Your task to perform on an android device: Open location settings Image 0: 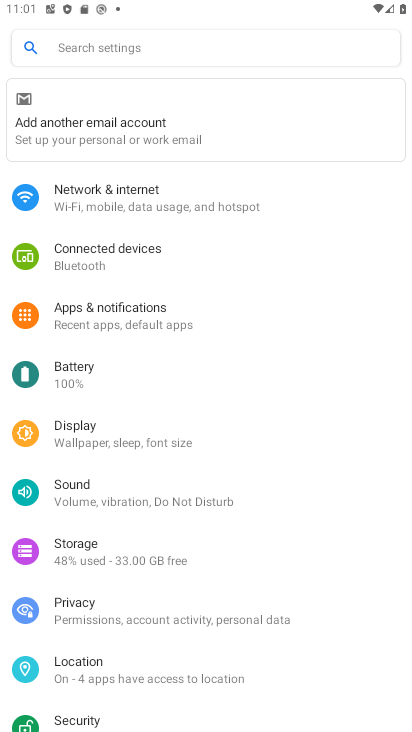
Step 0: press home button
Your task to perform on an android device: Open location settings Image 1: 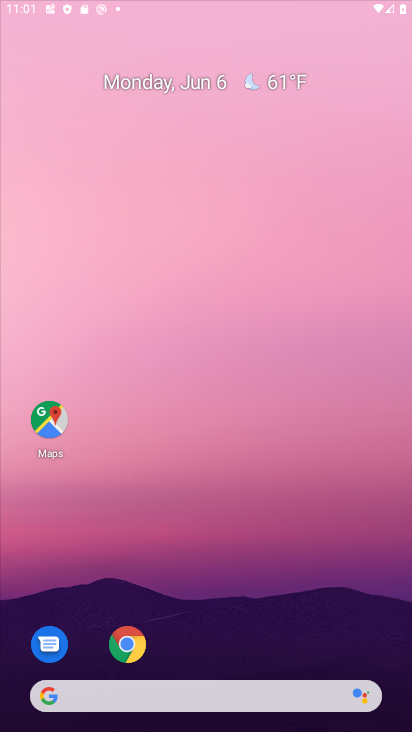
Step 1: drag from (212, 693) to (149, 70)
Your task to perform on an android device: Open location settings Image 2: 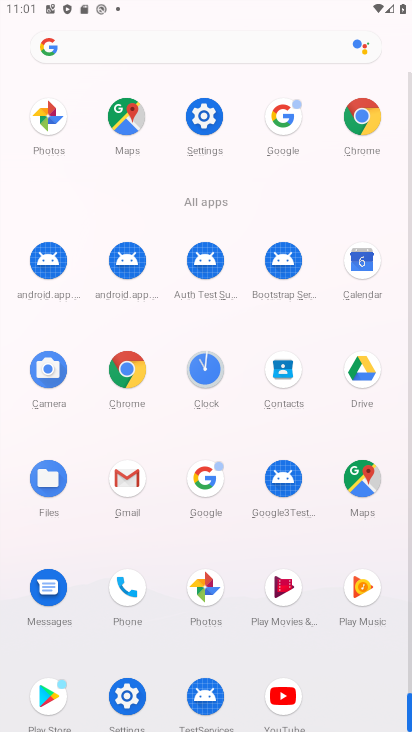
Step 2: click (211, 136)
Your task to perform on an android device: Open location settings Image 3: 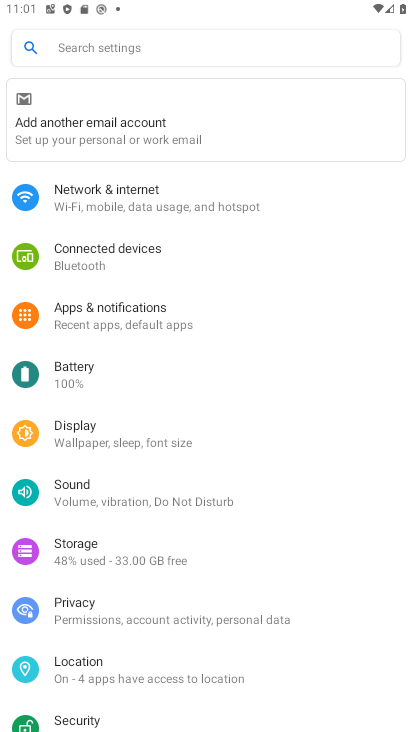
Step 3: click (188, 671)
Your task to perform on an android device: Open location settings Image 4: 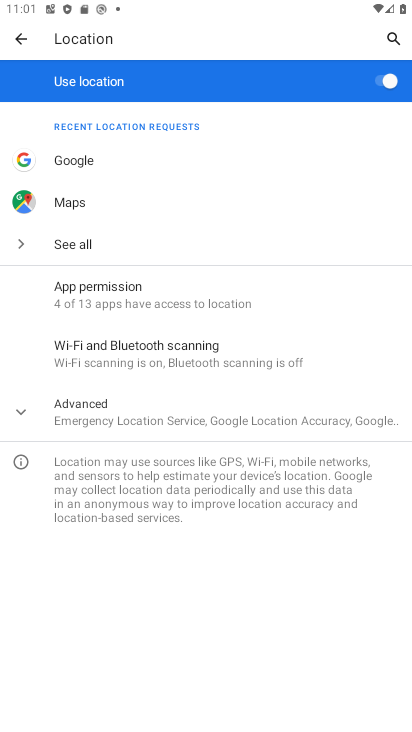
Step 4: task complete